Your task to perform on an android device: set default search engine in the chrome app Image 0: 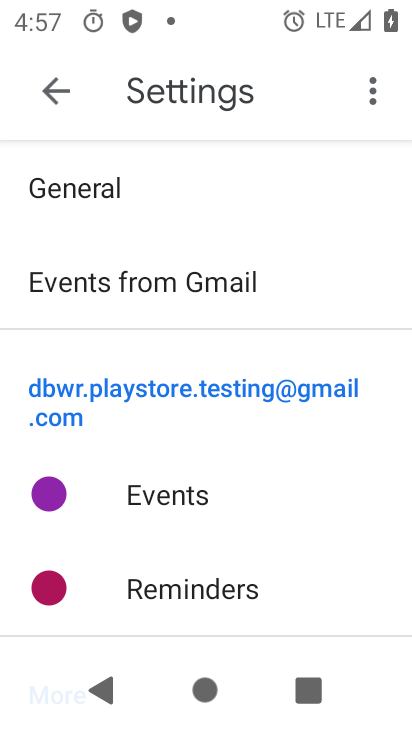
Step 0: press home button
Your task to perform on an android device: set default search engine in the chrome app Image 1: 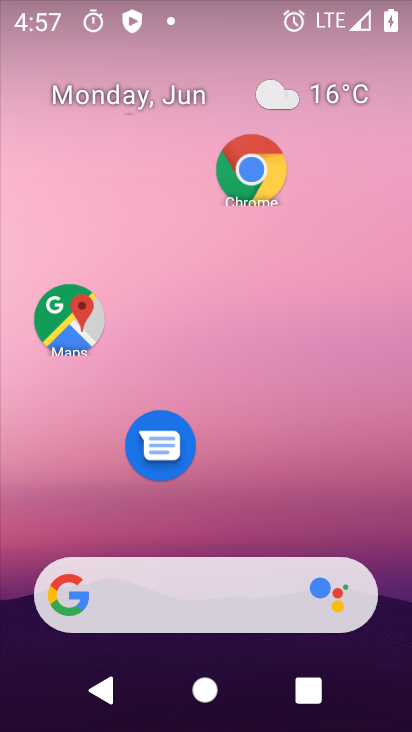
Step 1: drag from (209, 541) to (124, 47)
Your task to perform on an android device: set default search engine in the chrome app Image 2: 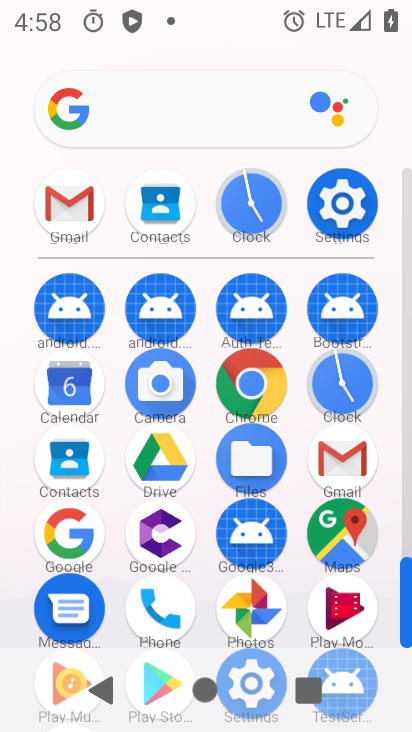
Step 2: click (255, 381)
Your task to perform on an android device: set default search engine in the chrome app Image 3: 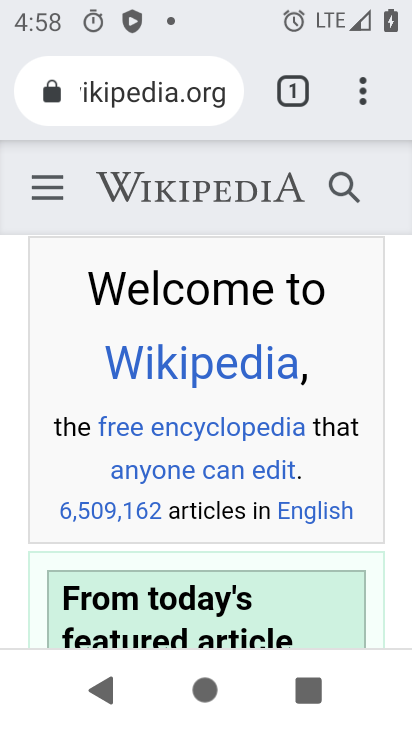
Step 3: click (361, 98)
Your task to perform on an android device: set default search engine in the chrome app Image 4: 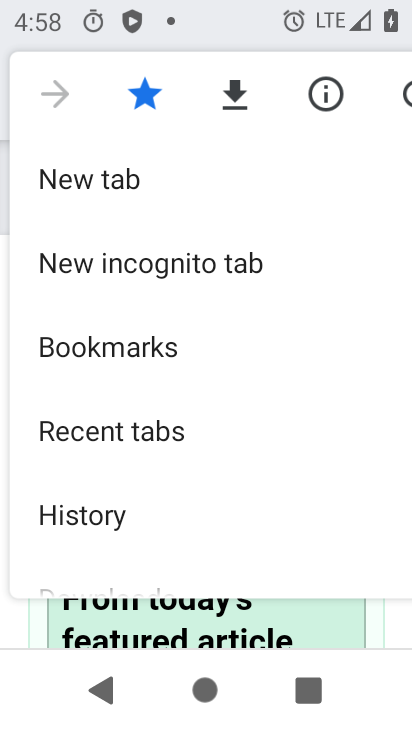
Step 4: drag from (153, 486) to (154, 258)
Your task to perform on an android device: set default search engine in the chrome app Image 5: 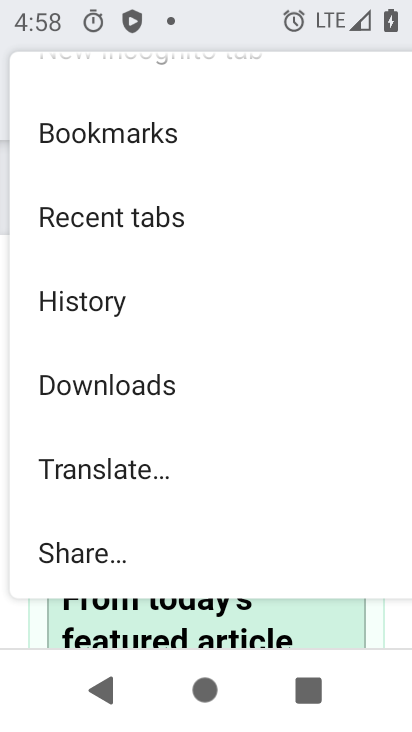
Step 5: drag from (187, 536) to (192, 294)
Your task to perform on an android device: set default search engine in the chrome app Image 6: 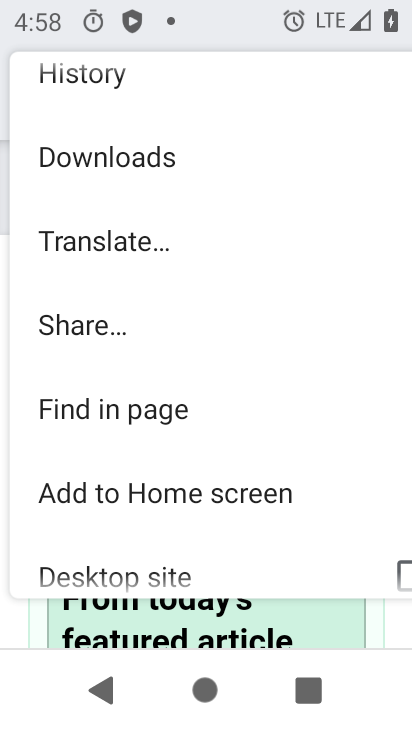
Step 6: drag from (125, 452) to (169, 243)
Your task to perform on an android device: set default search engine in the chrome app Image 7: 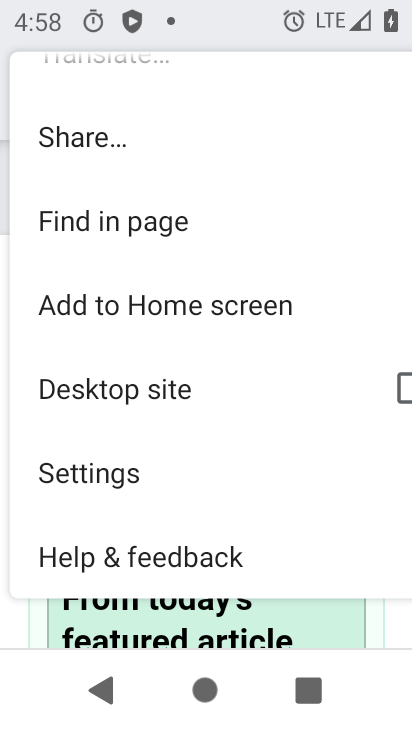
Step 7: click (113, 473)
Your task to perform on an android device: set default search engine in the chrome app Image 8: 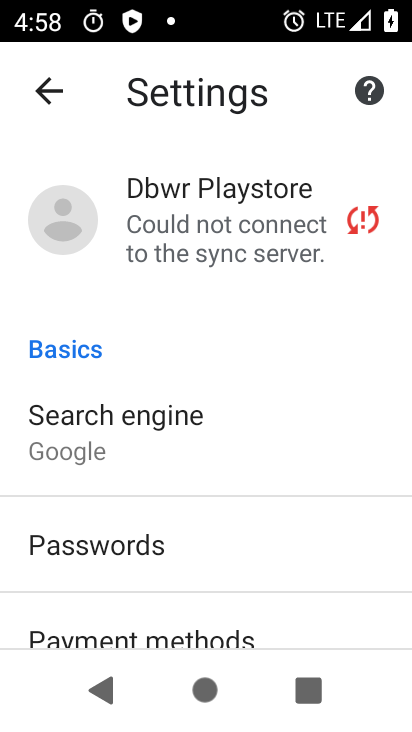
Step 8: drag from (181, 548) to (188, 272)
Your task to perform on an android device: set default search engine in the chrome app Image 9: 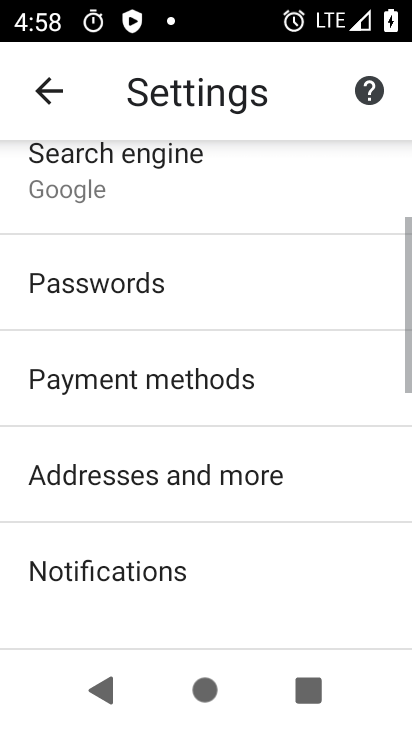
Step 9: drag from (204, 528) to (234, 277)
Your task to perform on an android device: set default search engine in the chrome app Image 10: 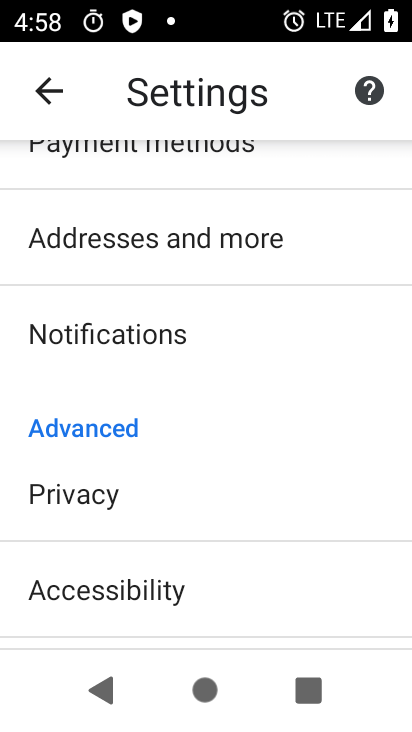
Step 10: drag from (218, 544) to (222, 289)
Your task to perform on an android device: set default search engine in the chrome app Image 11: 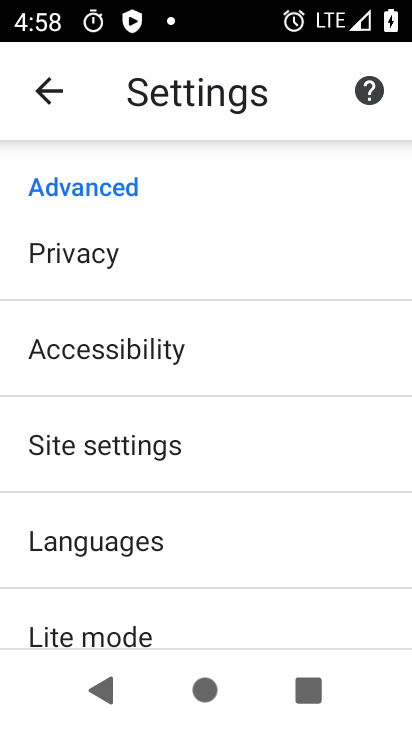
Step 11: drag from (146, 599) to (155, 372)
Your task to perform on an android device: set default search engine in the chrome app Image 12: 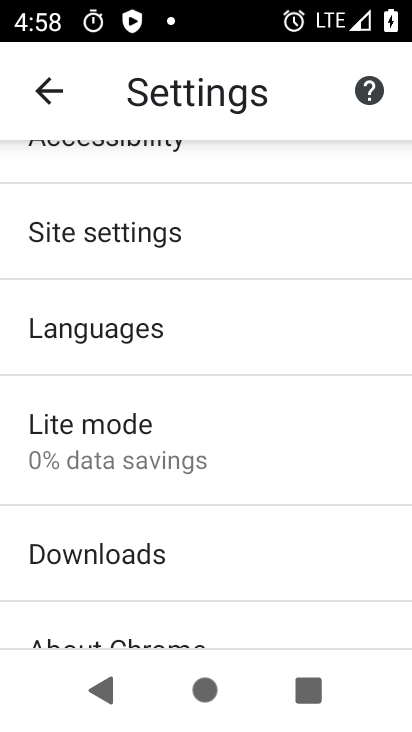
Step 12: drag from (153, 212) to (152, 591)
Your task to perform on an android device: set default search engine in the chrome app Image 13: 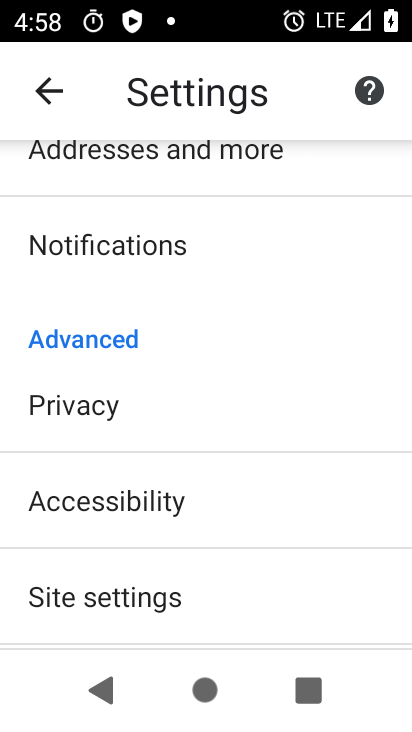
Step 13: drag from (159, 252) to (158, 646)
Your task to perform on an android device: set default search engine in the chrome app Image 14: 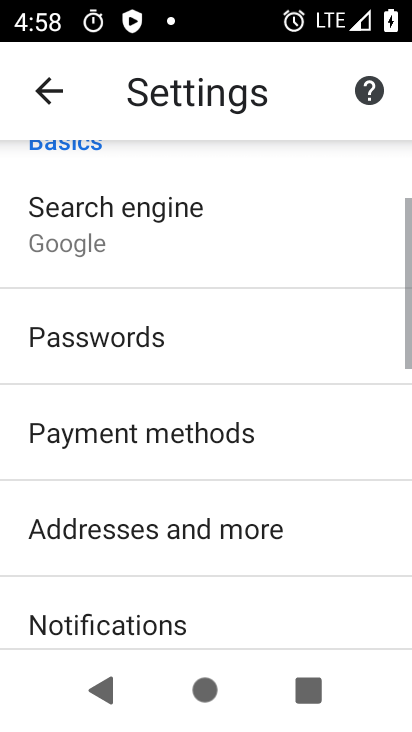
Step 14: click (80, 229)
Your task to perform on an android device: set default search engine in the chrome app Image 15: 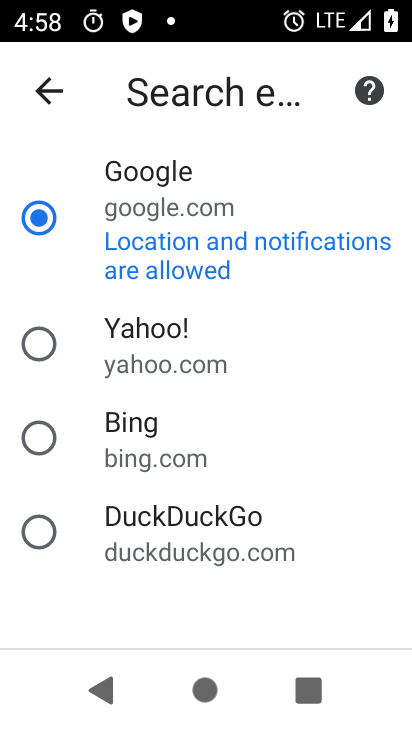
Step 15: click (47, 361)
Your task to perform on an android device: set default search engine in the chrome app Image 16: 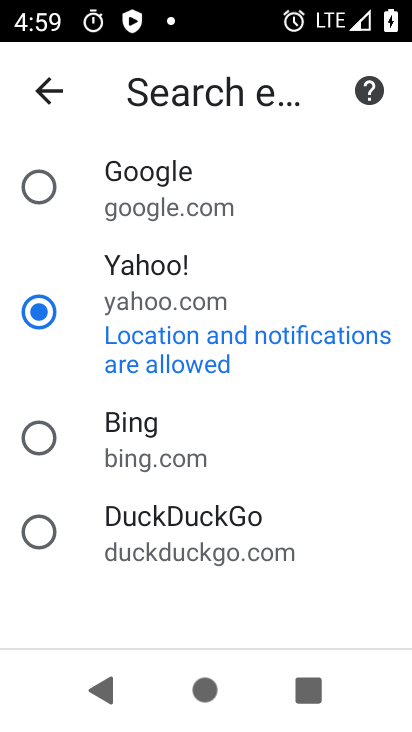
Step 16: task complete